Your task to perform on an android device: Go to ESPN.com Image 0: 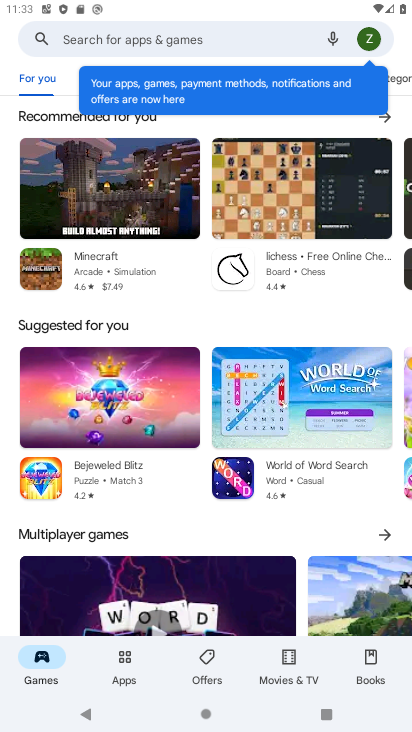
Step 0: press home button
Your task to perform on an android device: Go to ESPN.com Image 1: 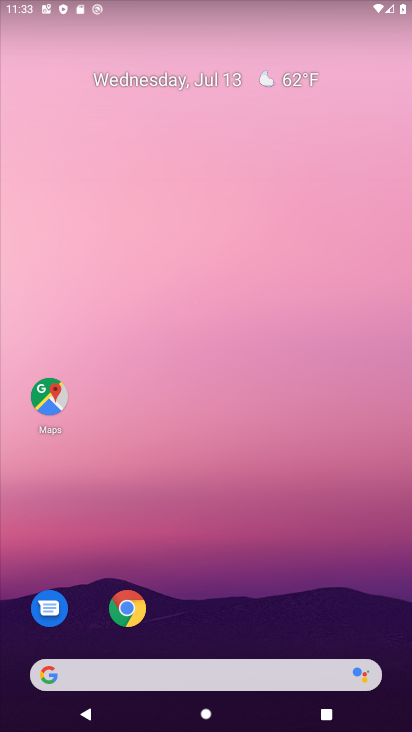
Step 1: drag from (234, 725) to (230, 94)
Your task to perform on an android device: Go to ESPN.com Image 2: 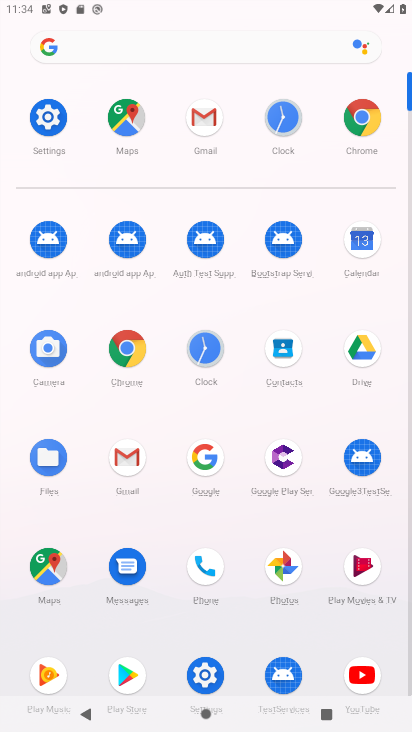
Step 2: click (361, 118)
Your task to perform on an android device: Go to ESPN.com Image 3: 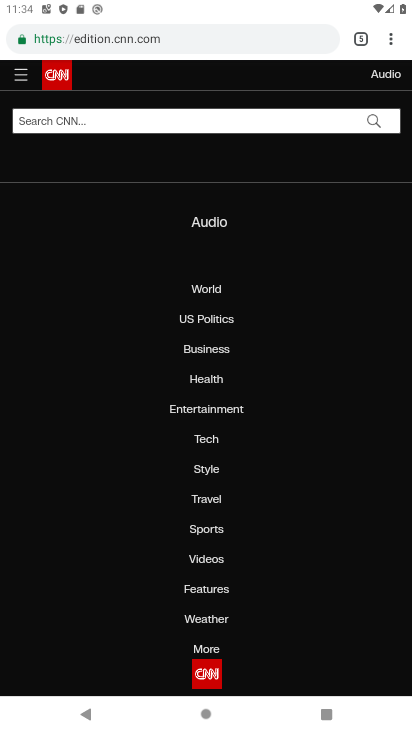
Step 3: click (390, 39)
Your task to perform on an android device: Go to ESPN.com Image 4: 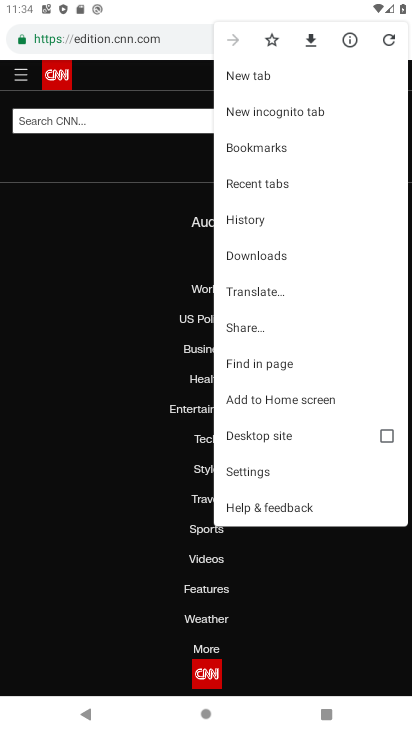
Step 4: click (233, 76)
Your task to perform on an android device: Go to ESPN.com Image 5: 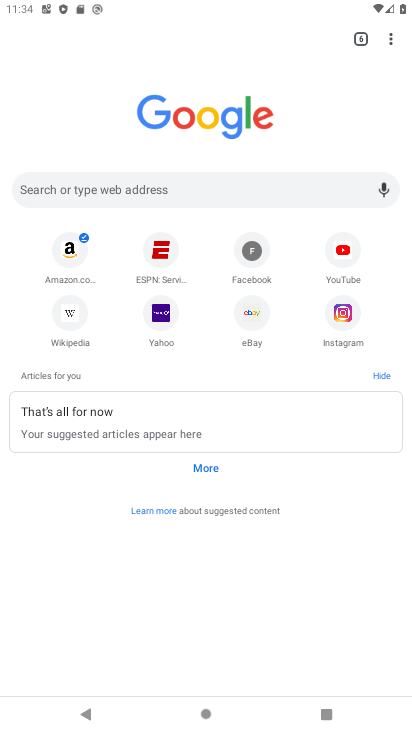
Step 5: click (159, 249)
Your task to perform on an android device: Go to ESPN.com Image 6: 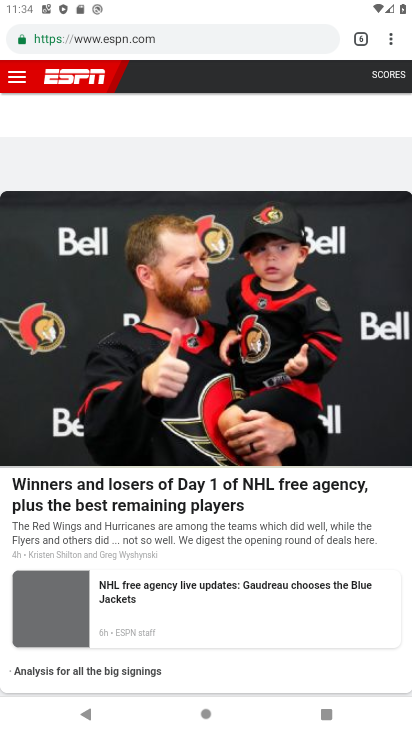
Step 6: task complete